Your task to perform on an android device: turn on javascript in the chrome app Image 0: 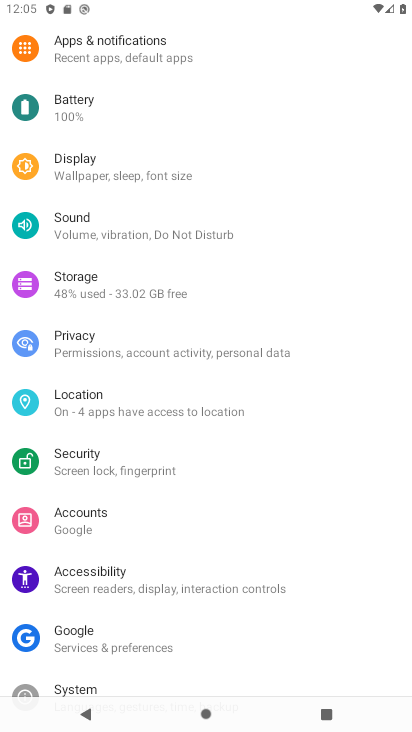
Step 0: task complete